Your task to perform on an android device: stop showing notifications on the lock screen Image 0: 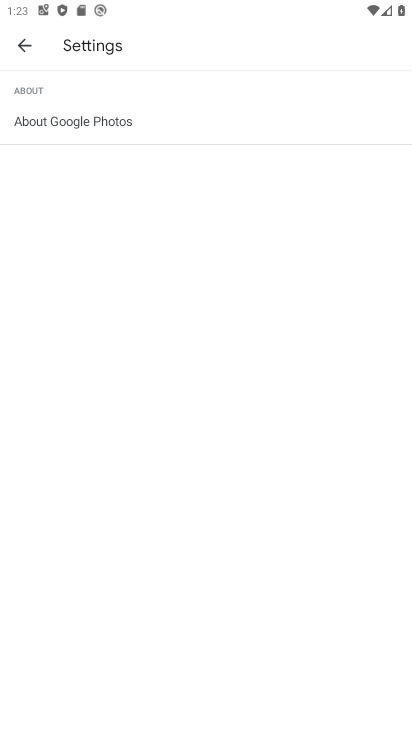
Step 0: press home button
Your task to perform on an android device: stop showing notifications on the lock screen Image 1: 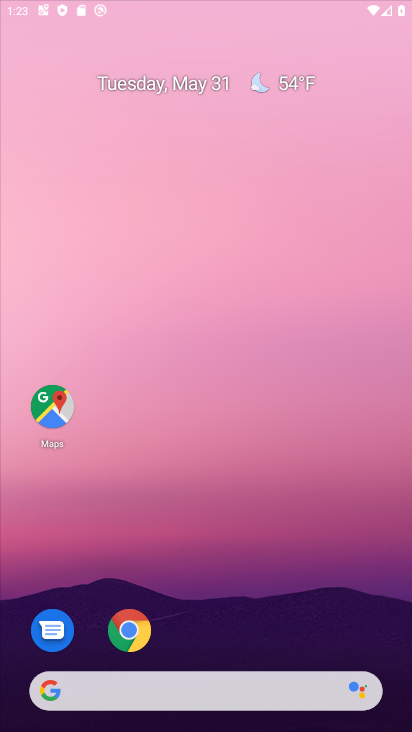
Step 1: drag from (237, 481) to (237, 191)
Your task to perform on an android device: stop showing notifications on the lock screen Image 2: 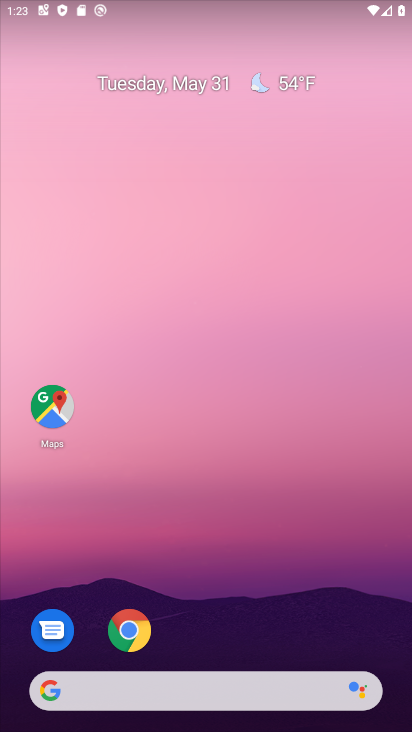
Step 2: drag from (220, 636) to (271, 71)
Your task to perform on an android device: stop showing notifications on the lock screen Image 3: 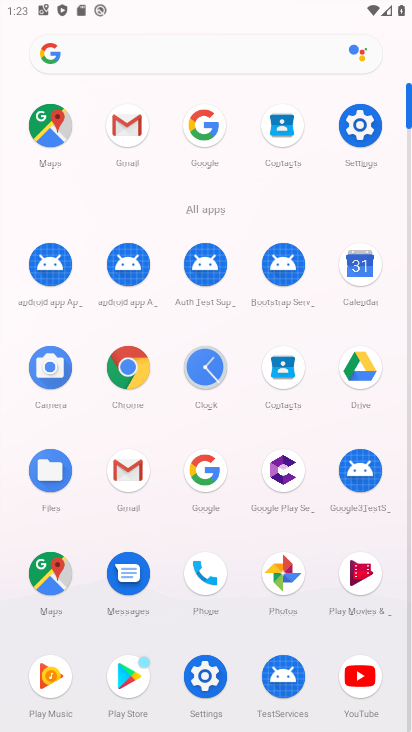
Step 3: click (376, 117)
Your task to perform on an android device: stop showing notifications on the lock screen Image 4: 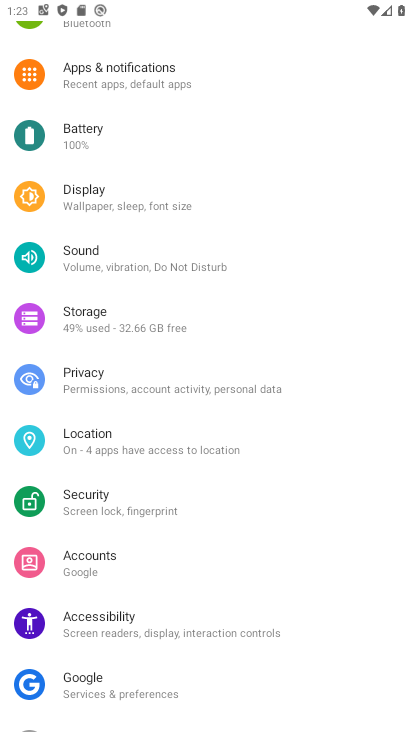
Step 4: click (134, 70)
Your task to perform on an android device: stop showing notifications on the lock screen Image 5: 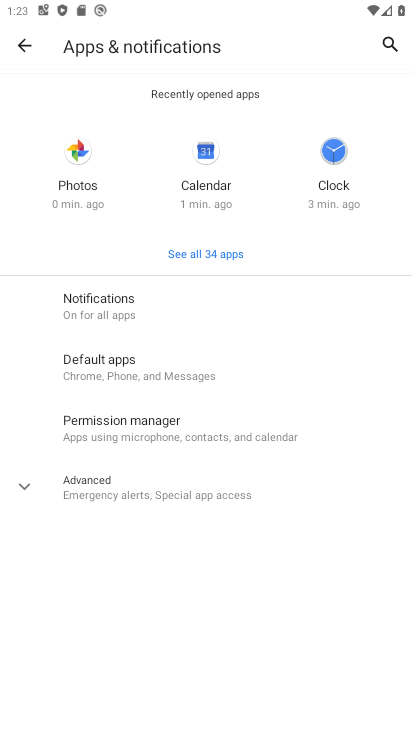
Step 5: click (119, 305)
Your task to perform on an android device: stop showing notifications on the lock screen Image 6: 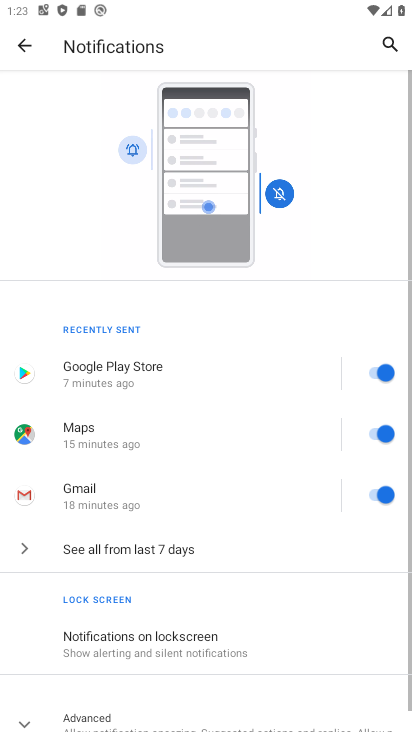
Step 6: click (115, 654)
Your task to perform on an android device: stop showing notifications on the lock screen Image 7: 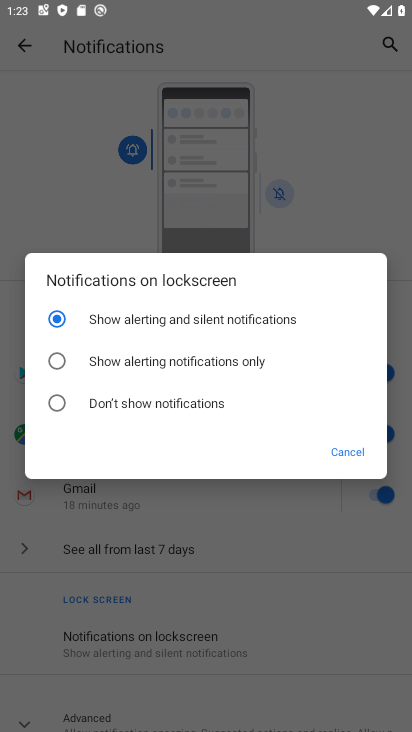
Step 7: click (73, 407)
Your task to perform on an android device: stop showing notifications on the lock screen Image 8: 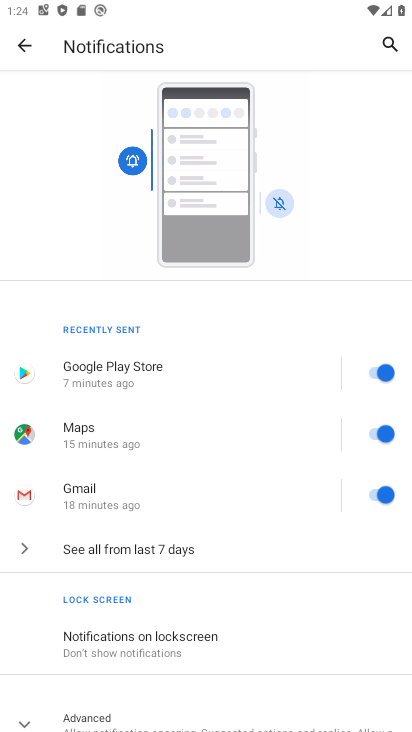
Step 8: task complete